Your task to perform on an android device: Open Google Maps Image 0: 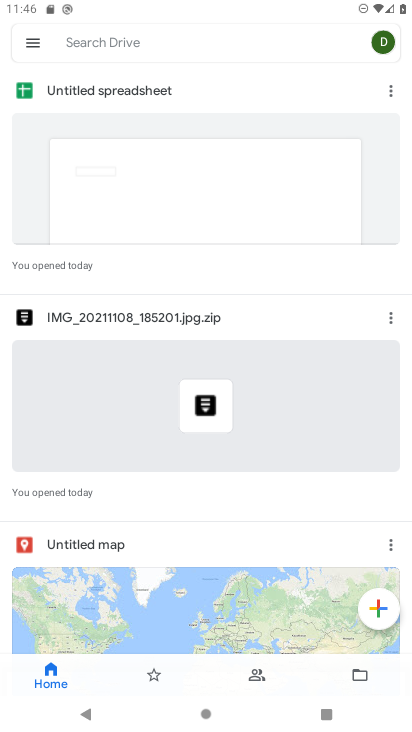
Step 0: press home button
Your task to perform on an android device: Open Google Maps Image 1: 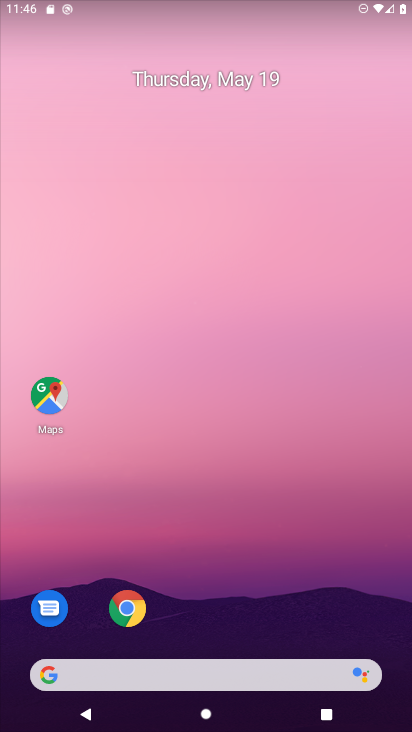
Step 1: click (39, 407)
Your task to perform on an android device: Open Google Maps Image 2: 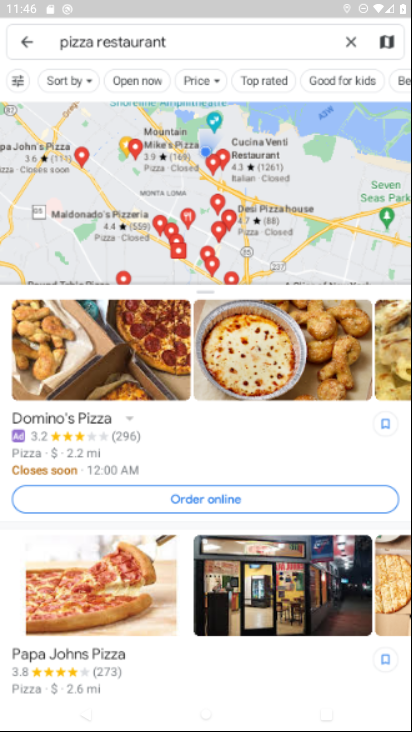
Step 2: task complete